Your task to perform on an android device: Go to Android settings Image 0: 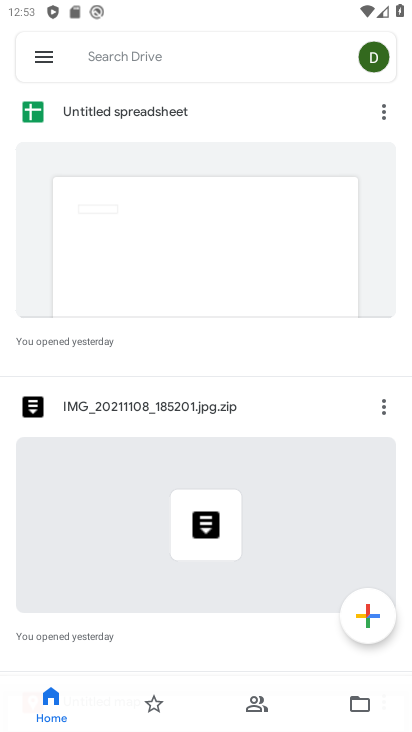
Step 0: press home button
Your task to perform on an android device: Go to Android settings Image 1: 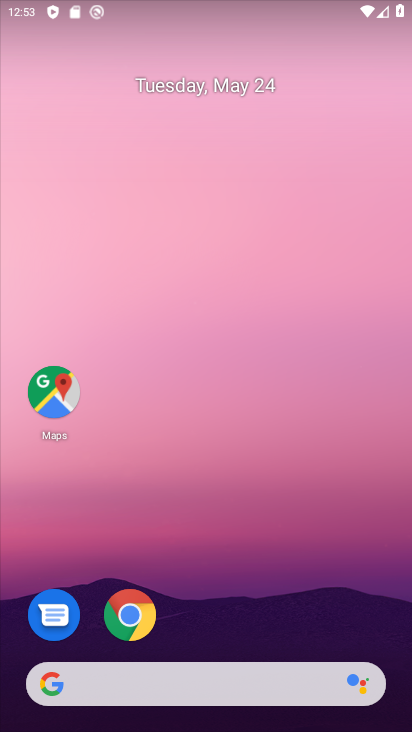
Step 1: drag from (204, 644) to (209, 540)
Your task to perform on an android device: Go to Android settings Image 2: 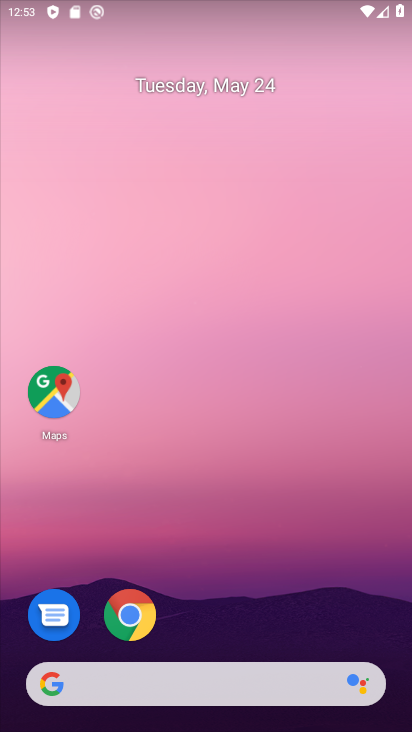
Step 2: drag from (226, 310) to (231, 111)
Your task to perform on an android device: Go to Android settings Image 3: 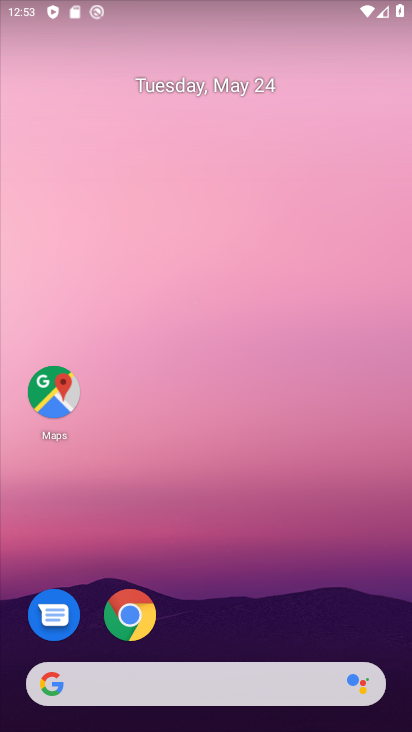
Step 3: drag from (201, 645) to (238, 98)
Your task to perform on an android device: Go to Android settings Image 4: 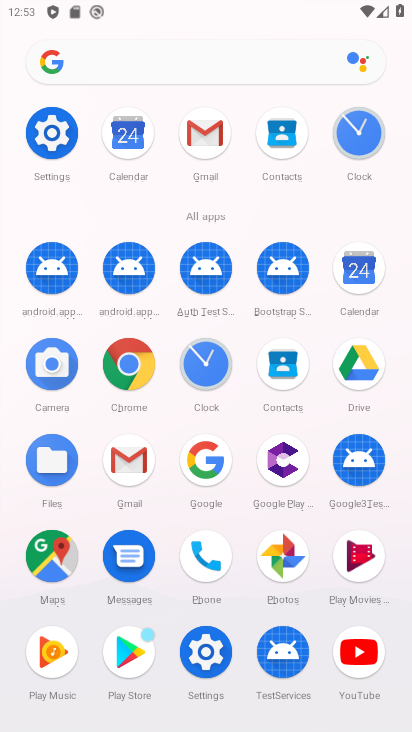
Step 4: click (204, 645)
Your task to perform on an android device: Go to Android settings Image 5: 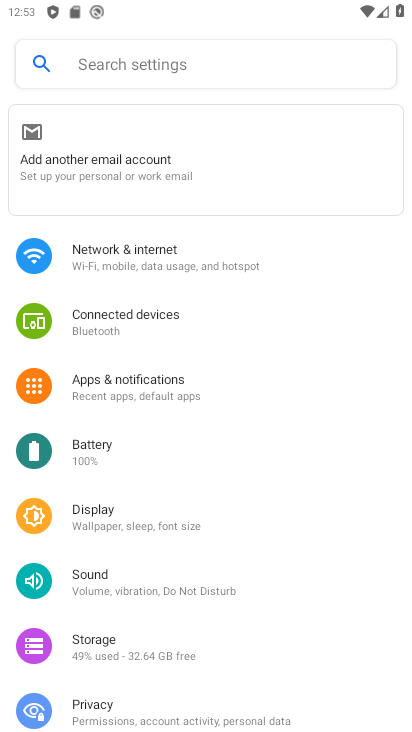
Step 5: drag from (228, 679) to (225, 86)
Your task to perform on an android device: Go to Android settings Image 6: 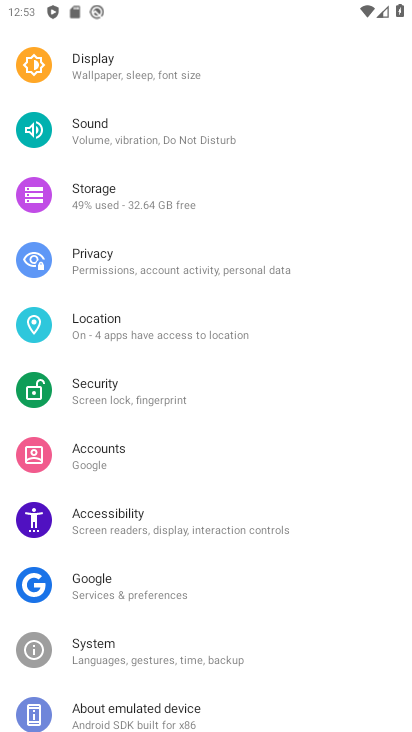
Step 6: drag from (191, 695) to (214, 178)
Your task to perform on an android device: Go to Android settings Image 7: 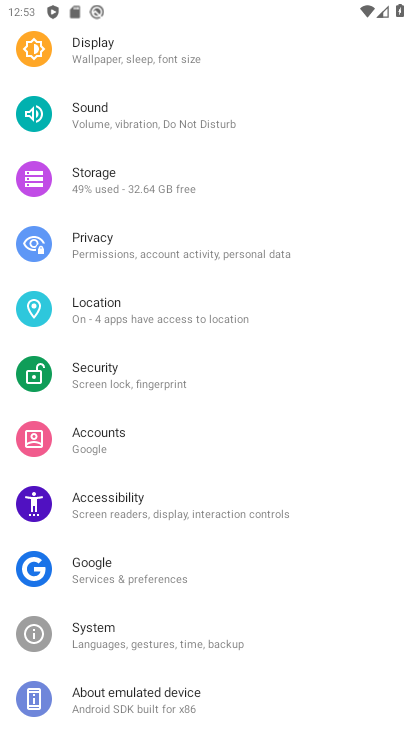
Step 7: click (211, 701)
Your task to perform on an android device: Go to Android settings Image 8: 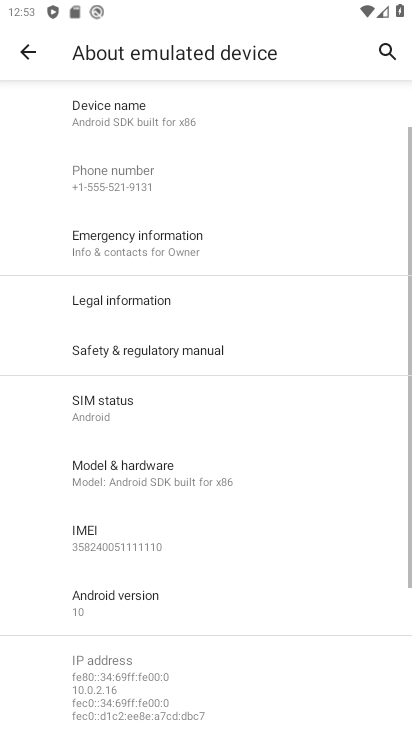
Step 8: click (135, 609)
Your task to perform on an android device: Go to Android settings Image 9: 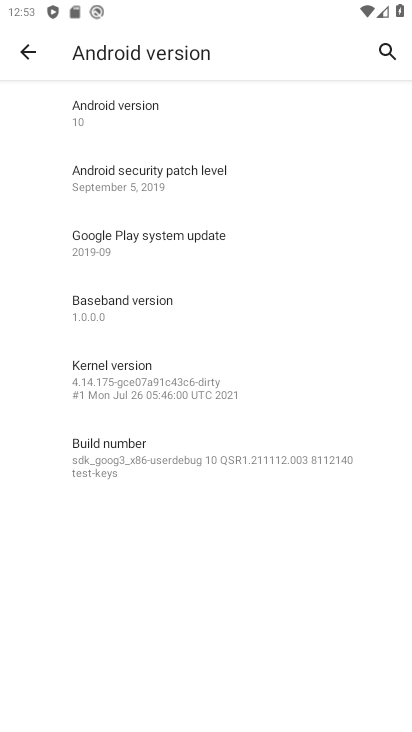
Step 9: task complete